Your task to perform on an android device: turn off sleep mode Image 0: 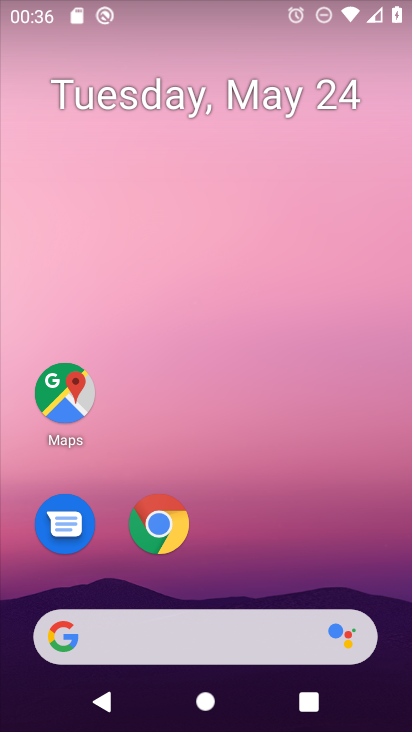
Step 0: drag from (229, 573) to (236, 133)
Your task to perform on an android device: turn off sleep mode Image 1: 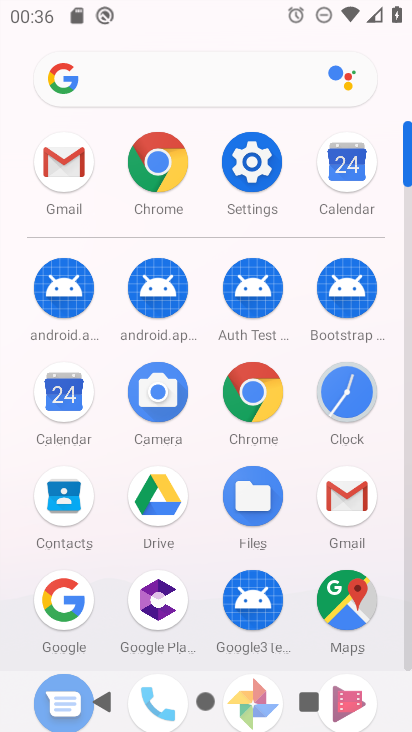
Step 1: click (261, 167)
Your task to perform on an android device: turn off sleep mode Image 2: 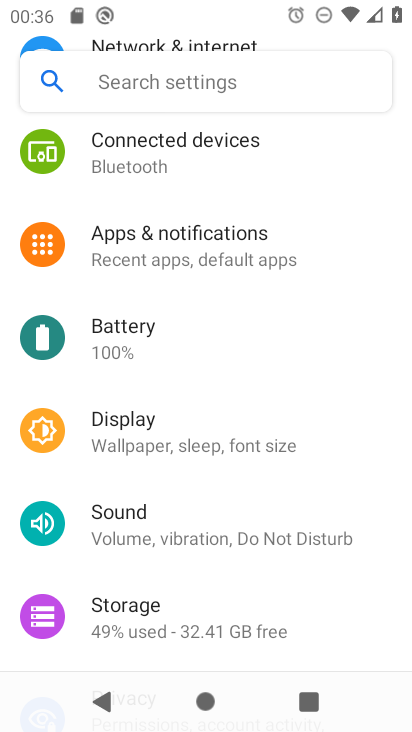
Step 2: drag from (243, 190) to (235, 571)
Your task to perform on an android device: turn off sleep mode Image 3: 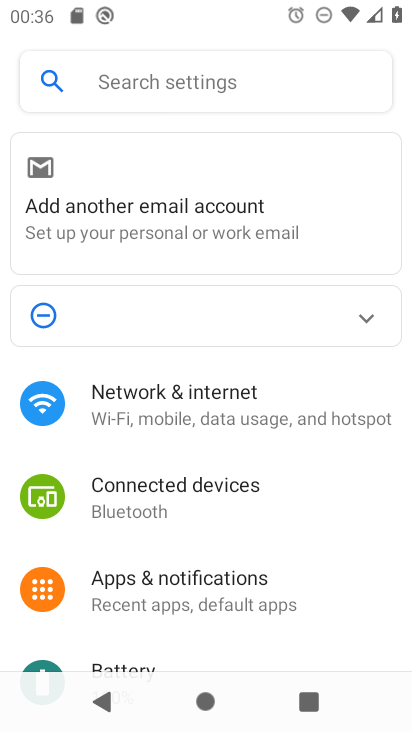
Step 3: drag from (214, 564) to (240, 316)
Your task to perform on an android device: turn off sleep mode Image 4: 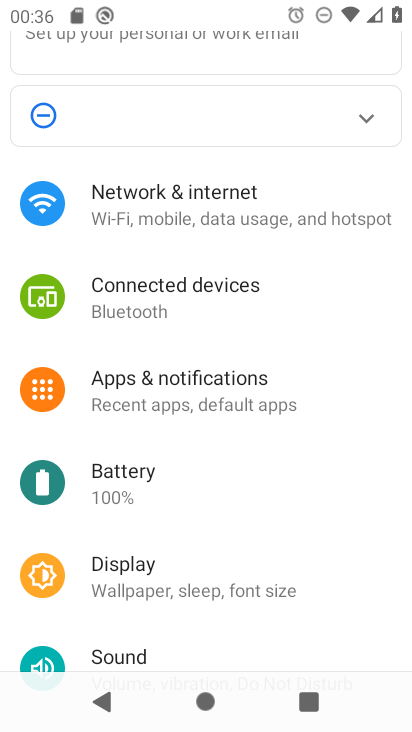
Step 4: drag from (182, 593) to (231, 311)
Your task to perform on an android device: turn off sleep mode Image 5: 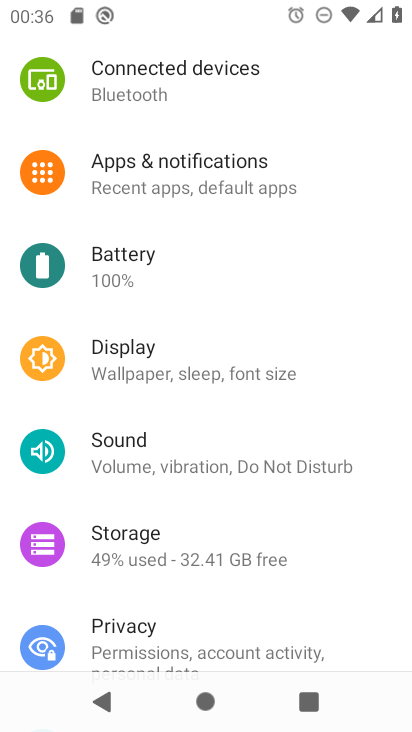
Step 5: drag from (168, 623) to (168, 420)
Your task to perform on an android device: turn off sleep mode Image 6: 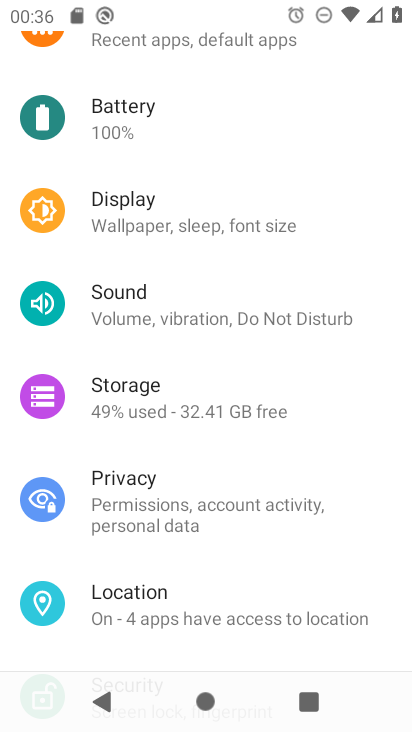
Step 6: click (191, 226)
Your task to perform on an android device: turn off sleep mode Image 7: 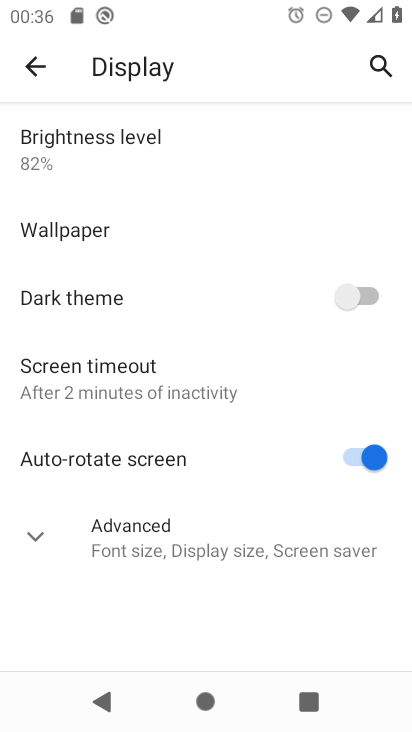
Step 7: click (151, 393)
Your task to perform on an android device: turn off sleep mode Image 8: 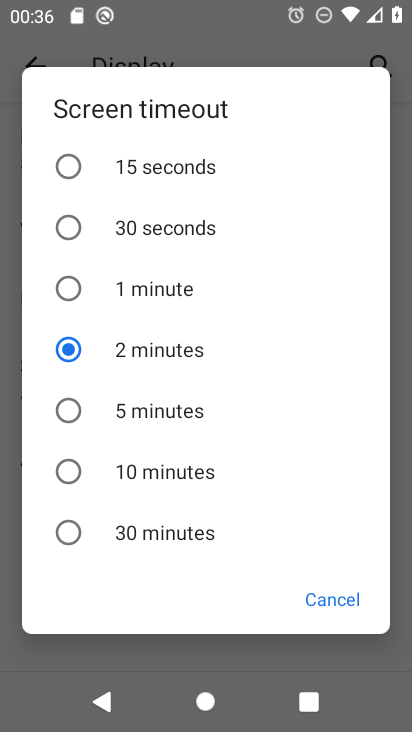
Step 8: click (147, 231)
Your task to perform on an android device: turn off sleep mode Image 9: 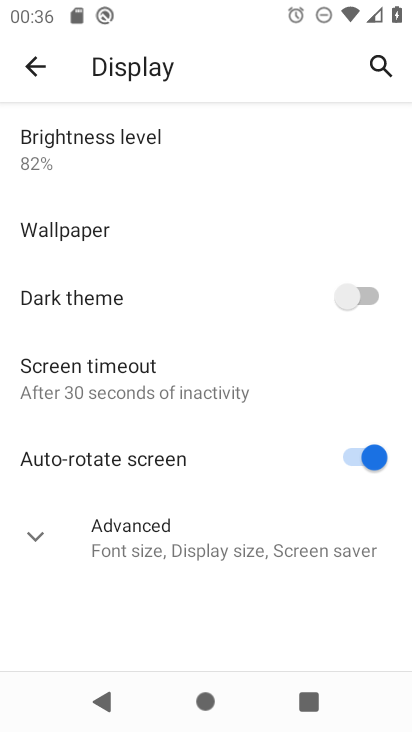
Step 9: task complete